Your task to perform on an android device: turn on location history Image 0: 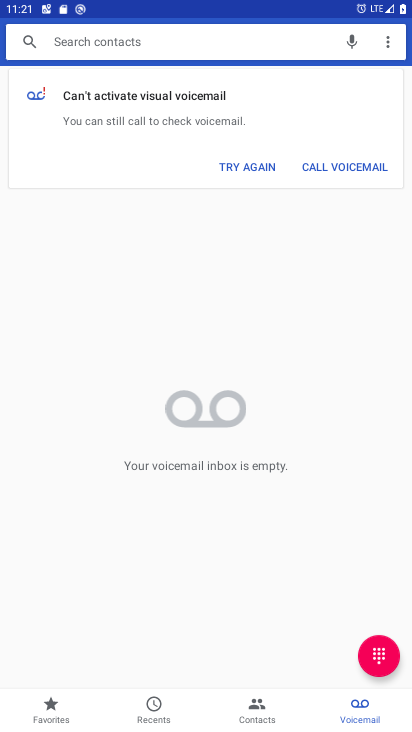
Step 0: press home button
Your task to perform on an android device: turn on location history Image 1: 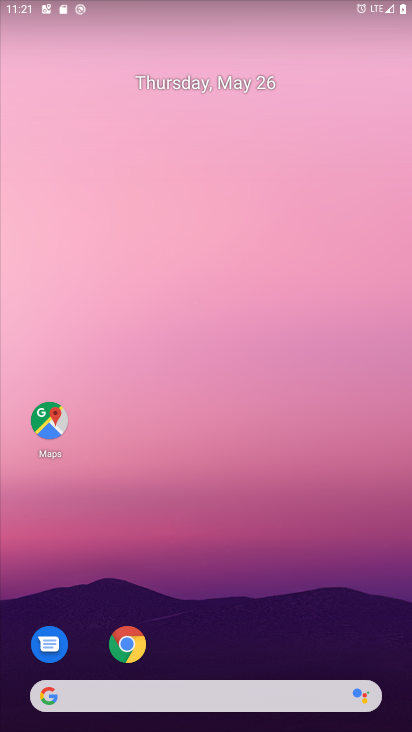
Step 1: drag from (336, 607) to (360, 227)
Your task to perform on an android device: turn on location history Image 2: 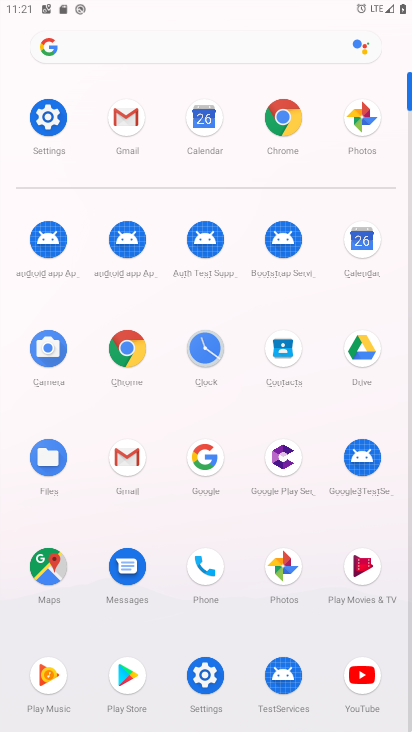
Step 2: click (50, 128)
Your task to perform on an android device: turn on location history Image 3: 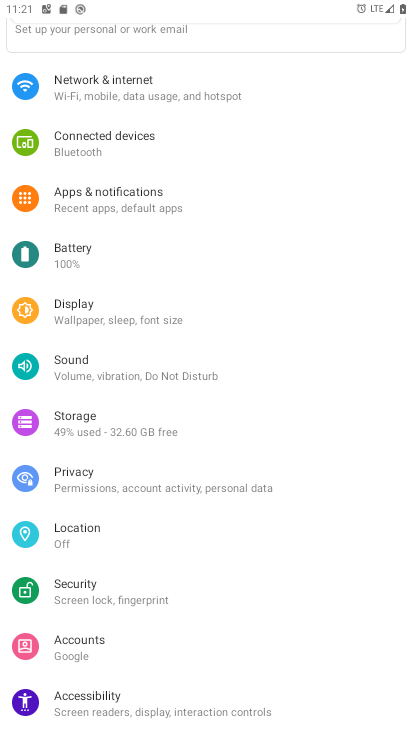
Step 3: drag from (326, 569) to (331, 353)
Your task to perform on an android device: turn on location history Image 4: 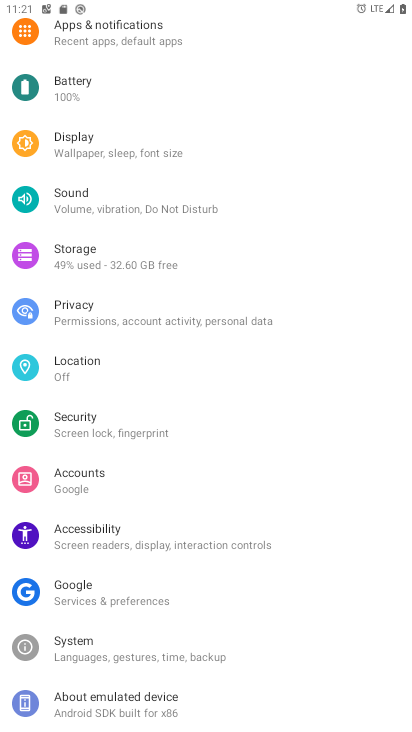
Step 4: click (71, 365)
Your task to perform on an android device: turn on location history Image 5: 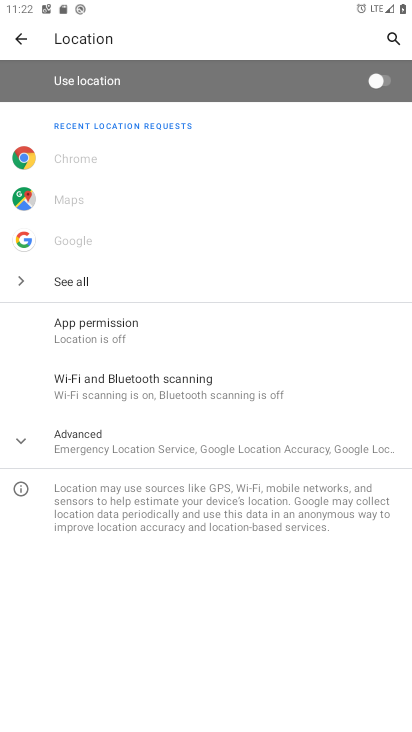
Step 5: click (217, 450)
Your task to perform on an android device: turn on location history Image 6: 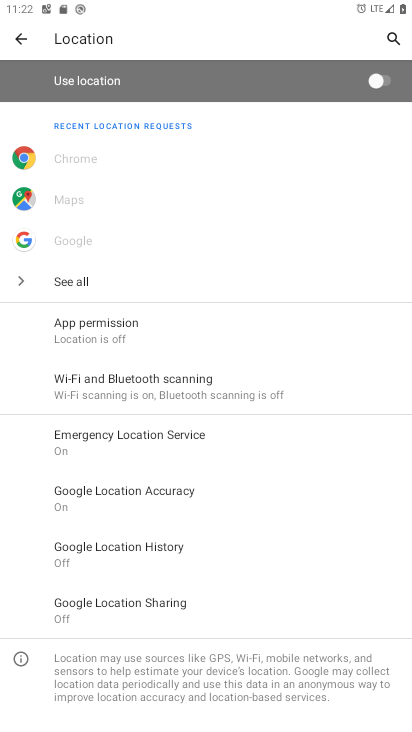
Step 6: click (160, 559)
Your task to perform on an android device: turn on location history Image 7: 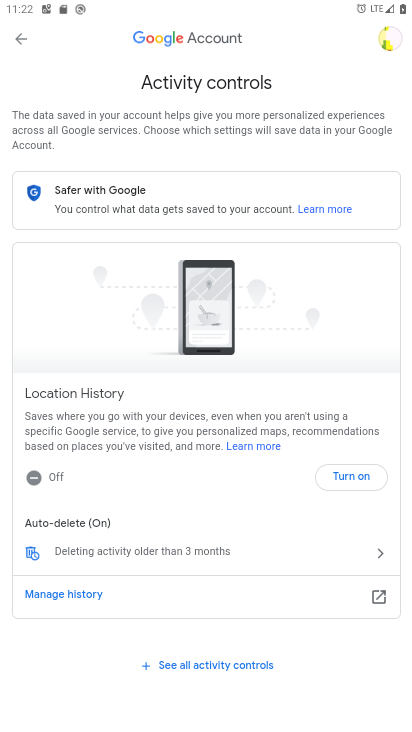
Step 7: click (359, 476)
Your task to perform on an android device: turn on location history Image 8: 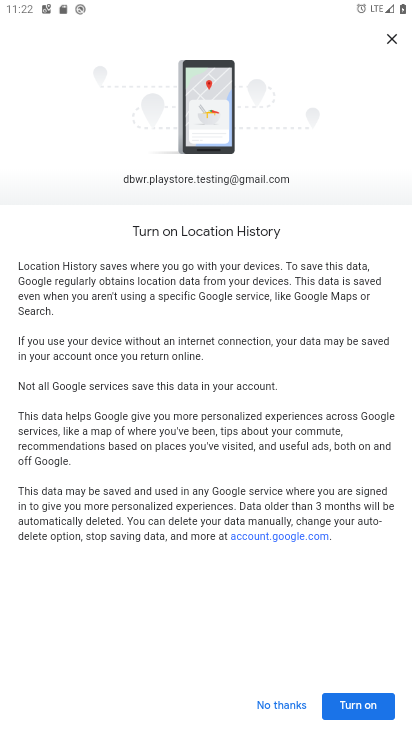
Step 8: click (369, 699)
Your task to perform on an android device: turn on location history Image 9: 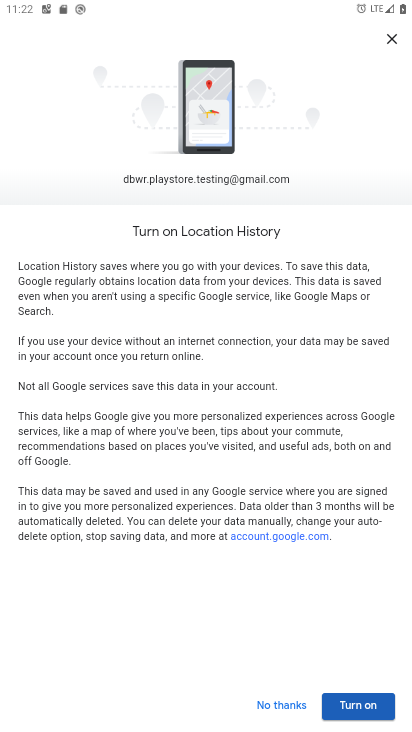
Step 9: click (352, 710)
Your task to perform on an android device: turn on location history Image 10: 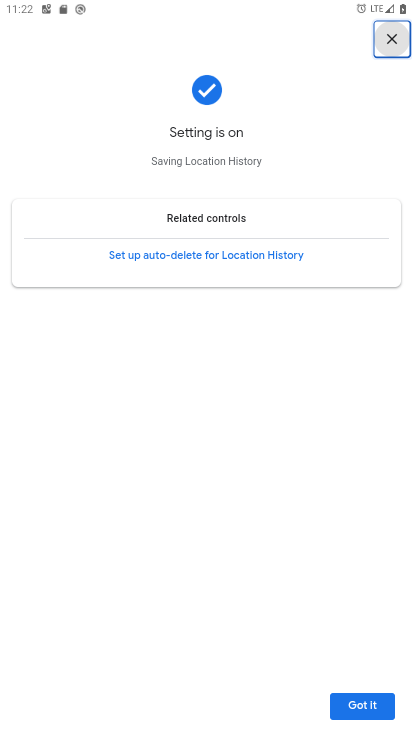
Step 10: task complete